Your task to perform on an android device: check the backup settings in the google photos Image 0: 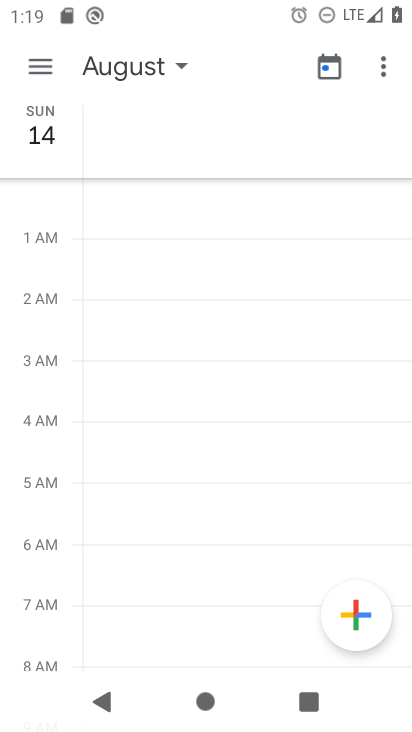
Step 0: press home button
Your task to perform on an android device: check the backup settings in the google photos Image 1: 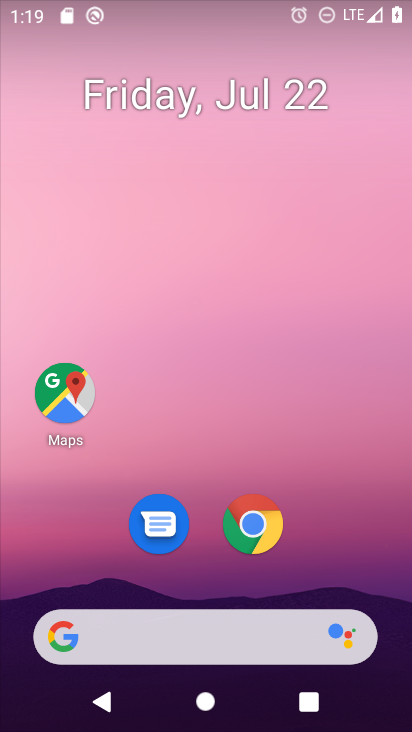
Step 1: drag from (332, 559) to (356, 46)
Your task to perform on an android device: check the backup settings in the google photos Image 2: 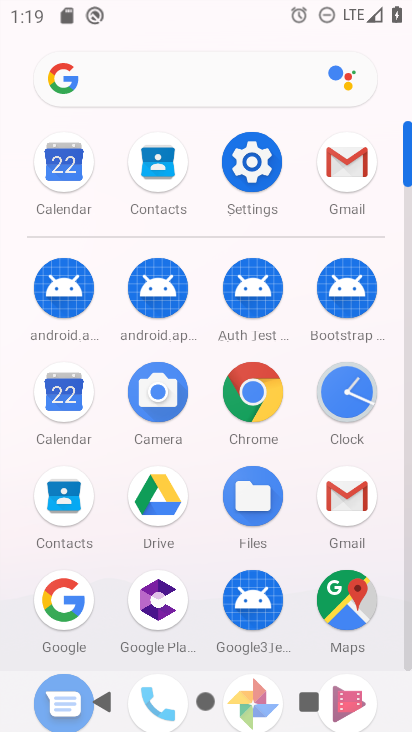
Step 2: drag from (197, 516) to (223, 223)
Your task to perform on an android device: check the backup settings in the google photos Image 3: 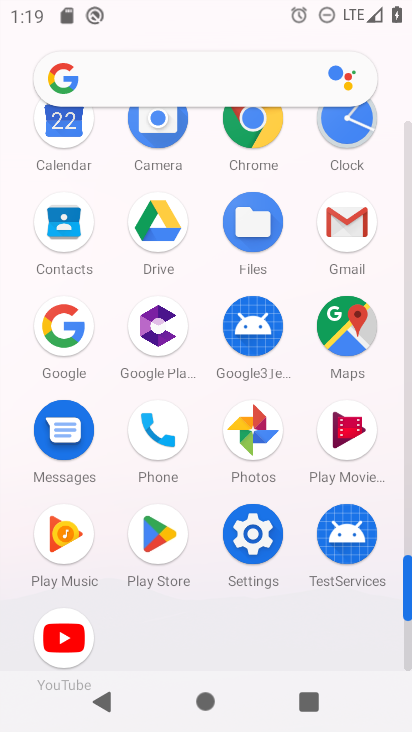
Step 3: click (251, 433)
Your task to perform on an android device: check the backup settings in the google photos Image 4: 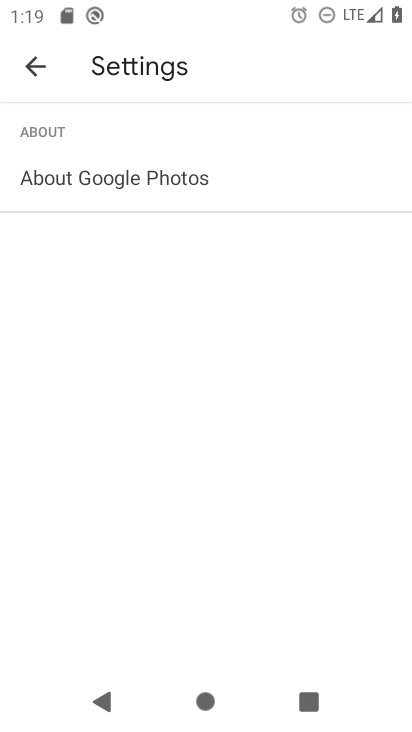
Step 4: click (29, 60)
Your task to perform on an android device: check the backup settings in the google photos Image 5: 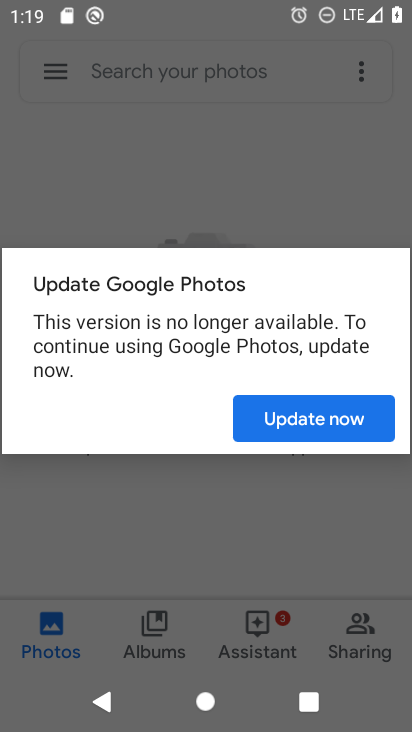
Step 5: click (268, 418)
Your task to perform on an android device: check the backup settings in the google photos Image 6: 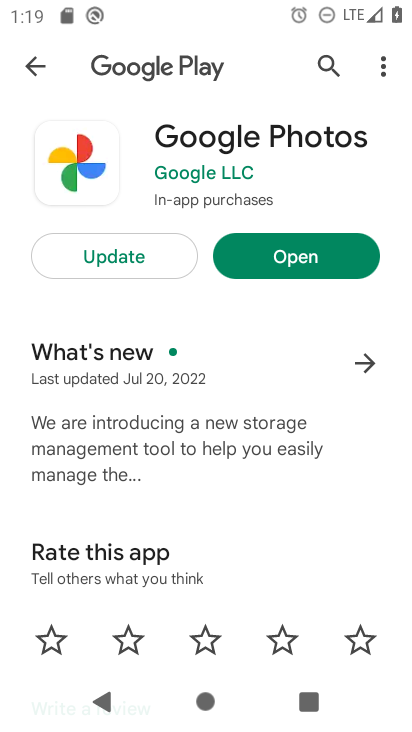
Step 6: click (310, 262)
Your task to perform on an android device: check the backup settings in the google photos Image 7: 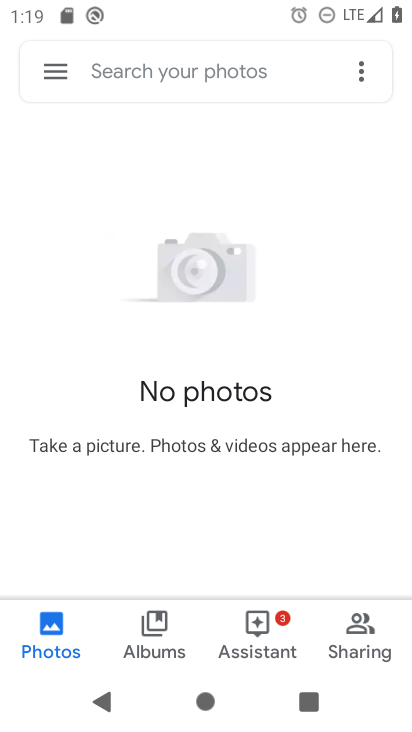
Step 7: click (55, 73)
Your task to perform on an android device: check the backup settings in the google photos Image 8: 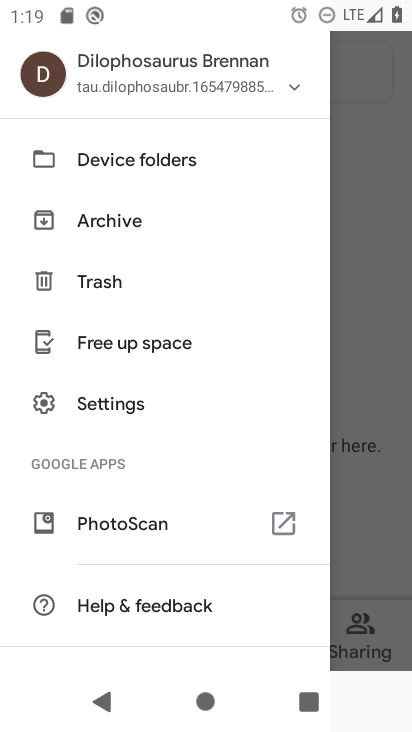
Step 8: click (105, 397)
Your task to perform on an android device: check the backup settings in the google photos Image 9: 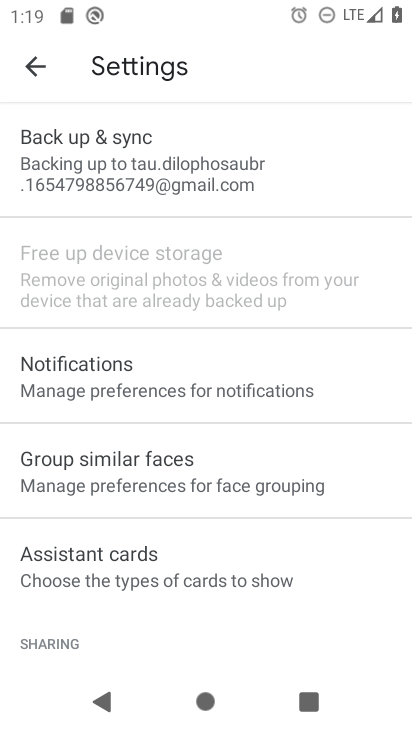
Step 9: click (184, 175)
Your task to perform on an android device: check the backup settings in the google photos Image 10: 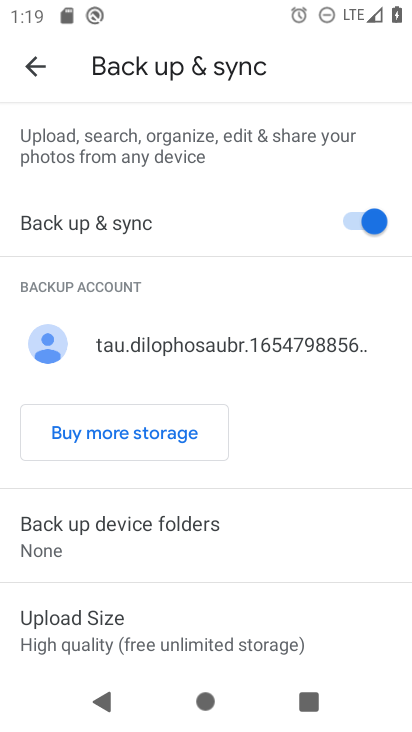
Step 10: task complete